Your task to perform on an android device: toggle priority inbox in the gmail app Image 0: 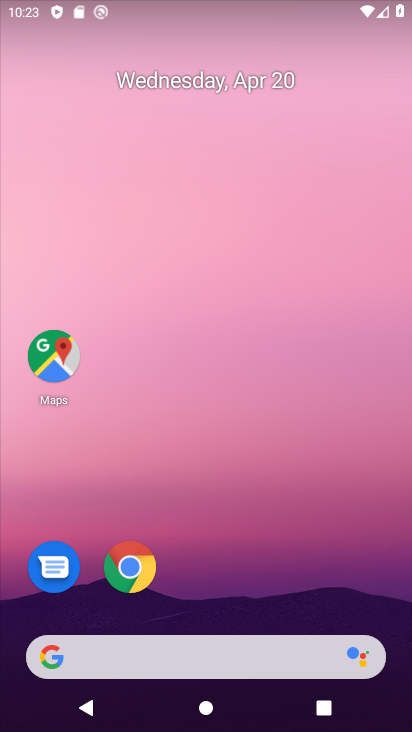
Step 0: drag from (233, 582) to (255, 88)
Your task to perform on an android device: toggle priority inbox in the gmail app Image 1: 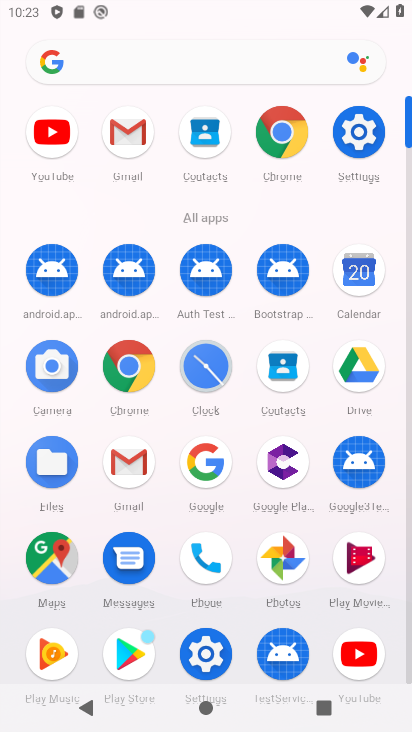
Step 1: click (128, 130)
Your task to perform on an android device: toggle priority inbox in the gmail app Image 2: 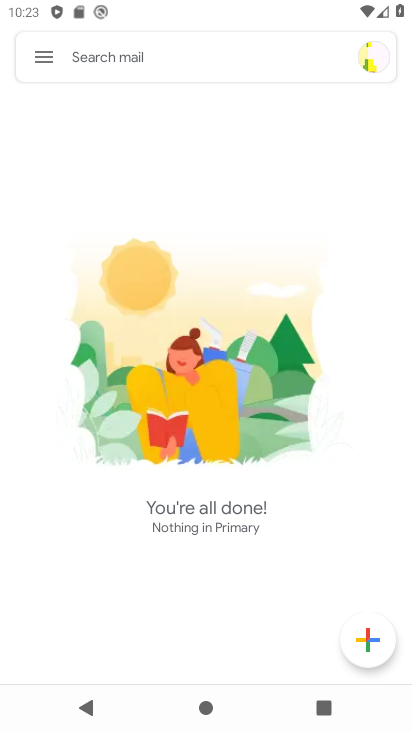
Step 2: click (42, 59)
Your task to perform on an android device: toggle priority inbox in the gmail app Image 3: 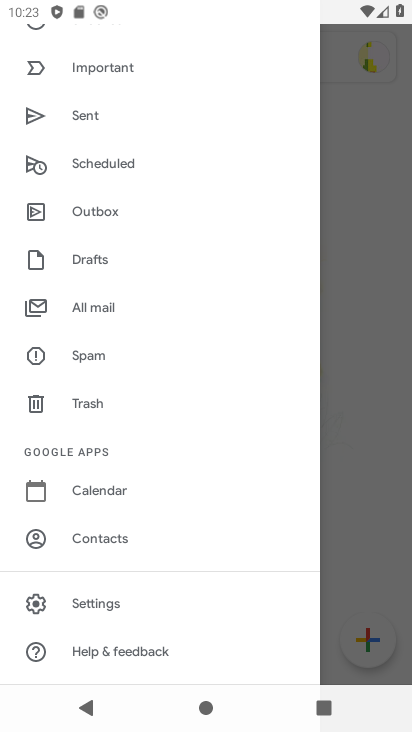
Step 3: drag from (123, 465) to (141, 377)
Your task to perform on an android device: toggle priority inbox in the gmail app Image 4: 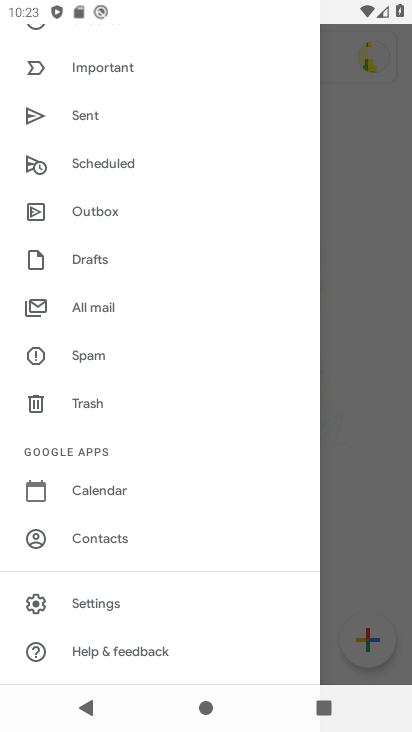
Step 4: click (110, 606)
Your task to perform on an android device: toggle priority inbox in the gmail app Image 5: 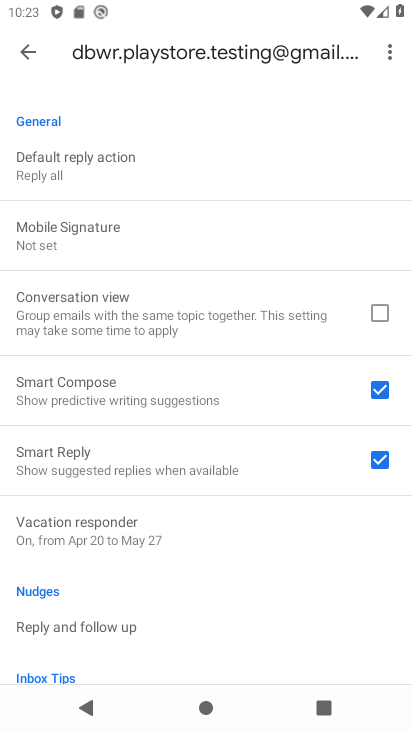
Step 5: drag from (165, 260) to (209, 443)
Your task to perform on an android device: toggle priority inbox in the gmail app Image 6: 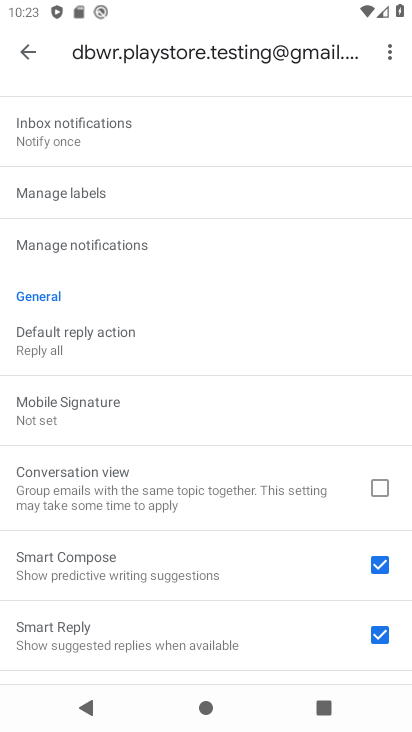
Step 6: drag from (222, 282) to (207, 420)
Your task to perform on an android device: toggle priority inbox in the gmail app Image 7: 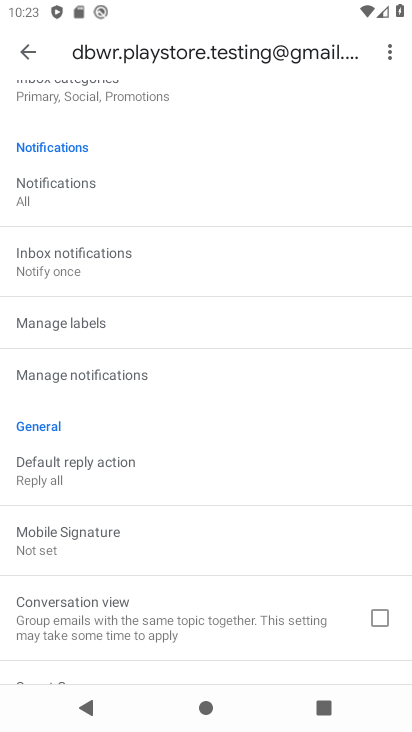
Step 7: drag from (168, 226) to (167, 351)
Your task to perform on an android device: toggle priority inbox in the gmail app Image 8: 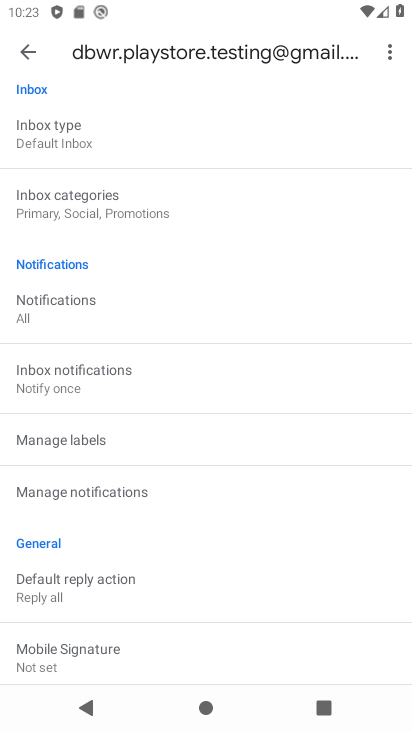
Step 8: click (69, 141)
Your task to perform on an android device: toggle priority inbox in the gmail app Image 9: 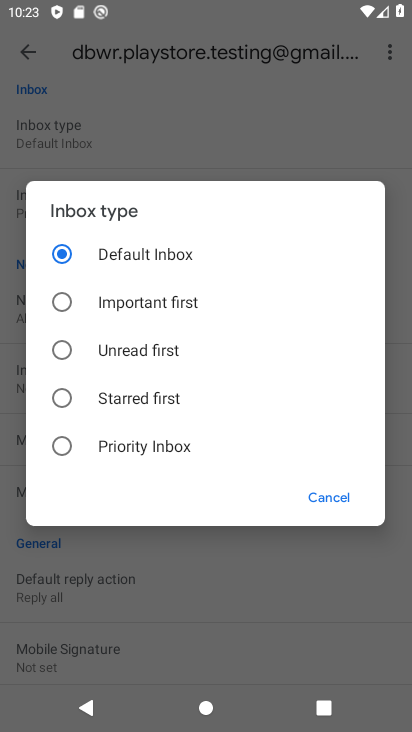
Step 9: click (59, 447)
Your task to perform on an android device: toggle priority inbox in the gmail app Image 10: 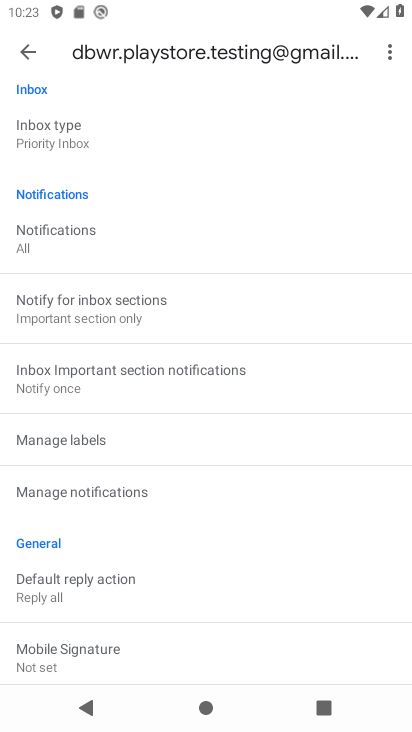
Step 10: task complete